Your task to perform on an android device: turn on sleep mode Image 0: 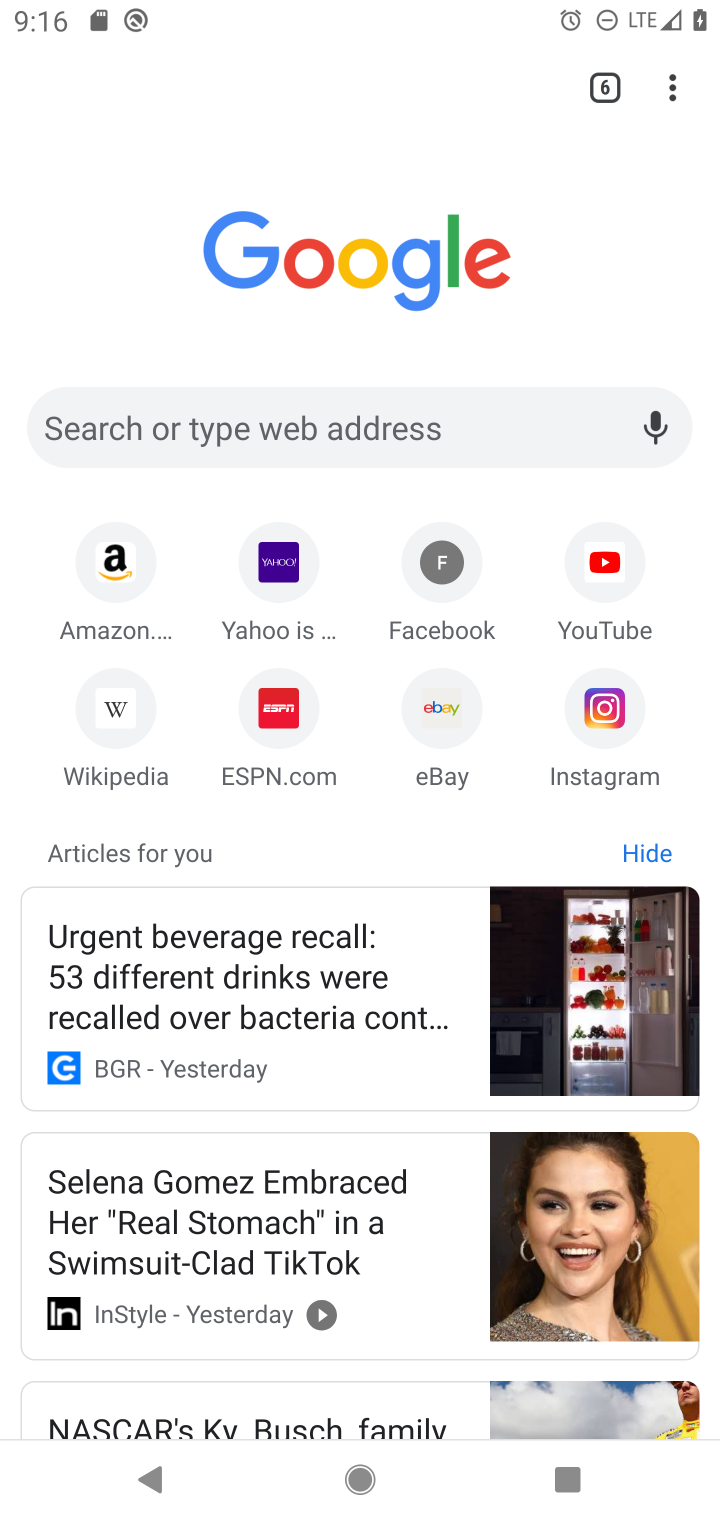
Step 0: press home button
Your task to perform on an android device: turn on sleep mode Image 1: 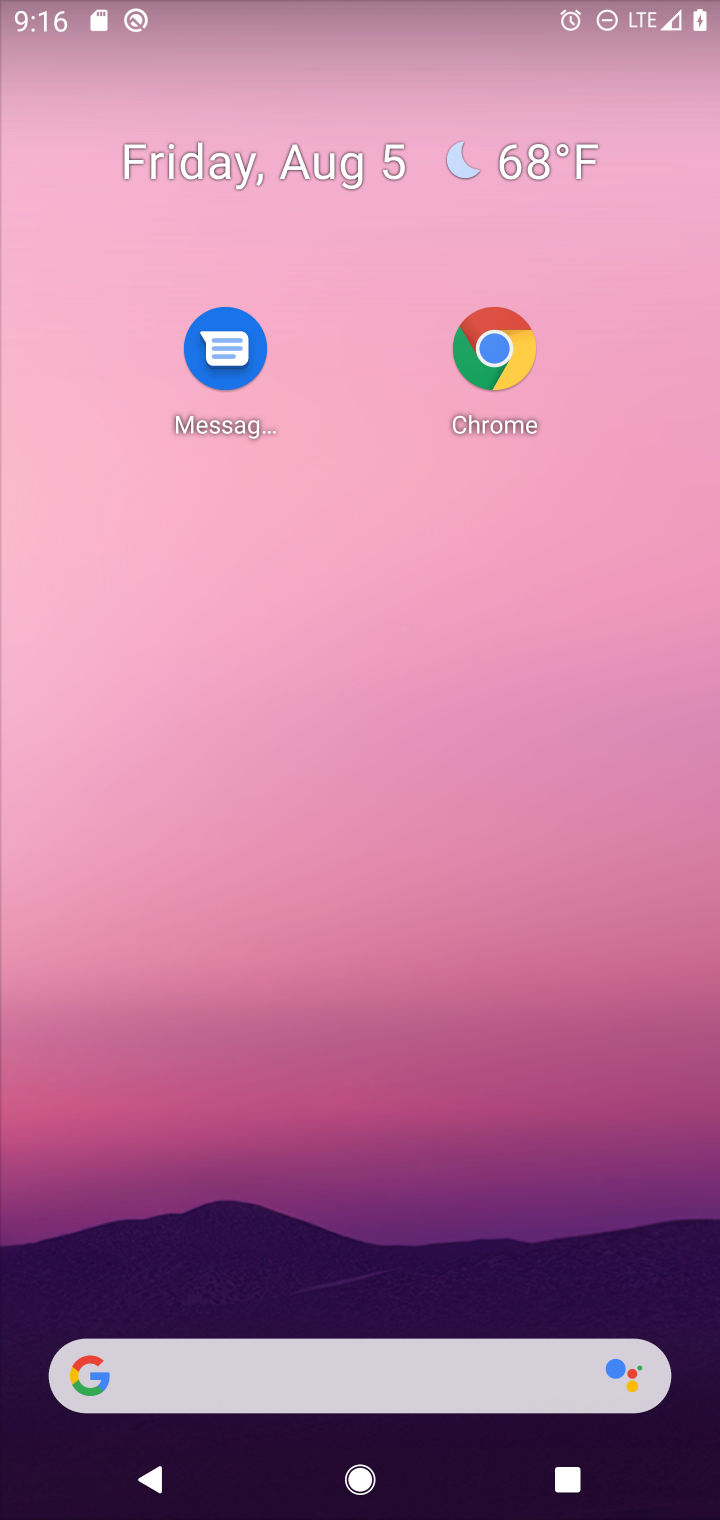
Step 1: drag from (487, 775) to (459, 155)
Your task to perform on an android device: turn on sleep mode Image 2: 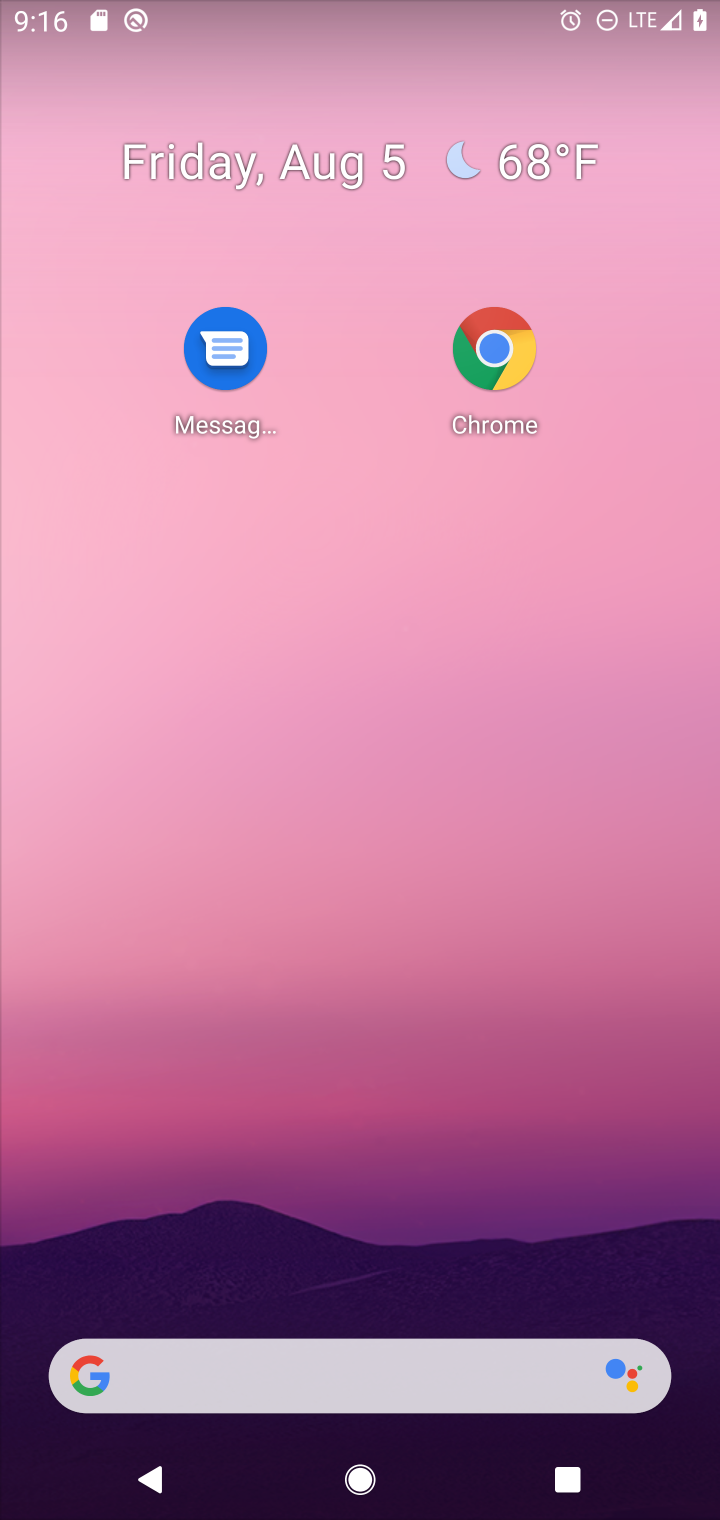
Step 2: drag from (356, 1336) to (456, 122)
Your task to perform on an android device: turn on sleep mode Image 3: 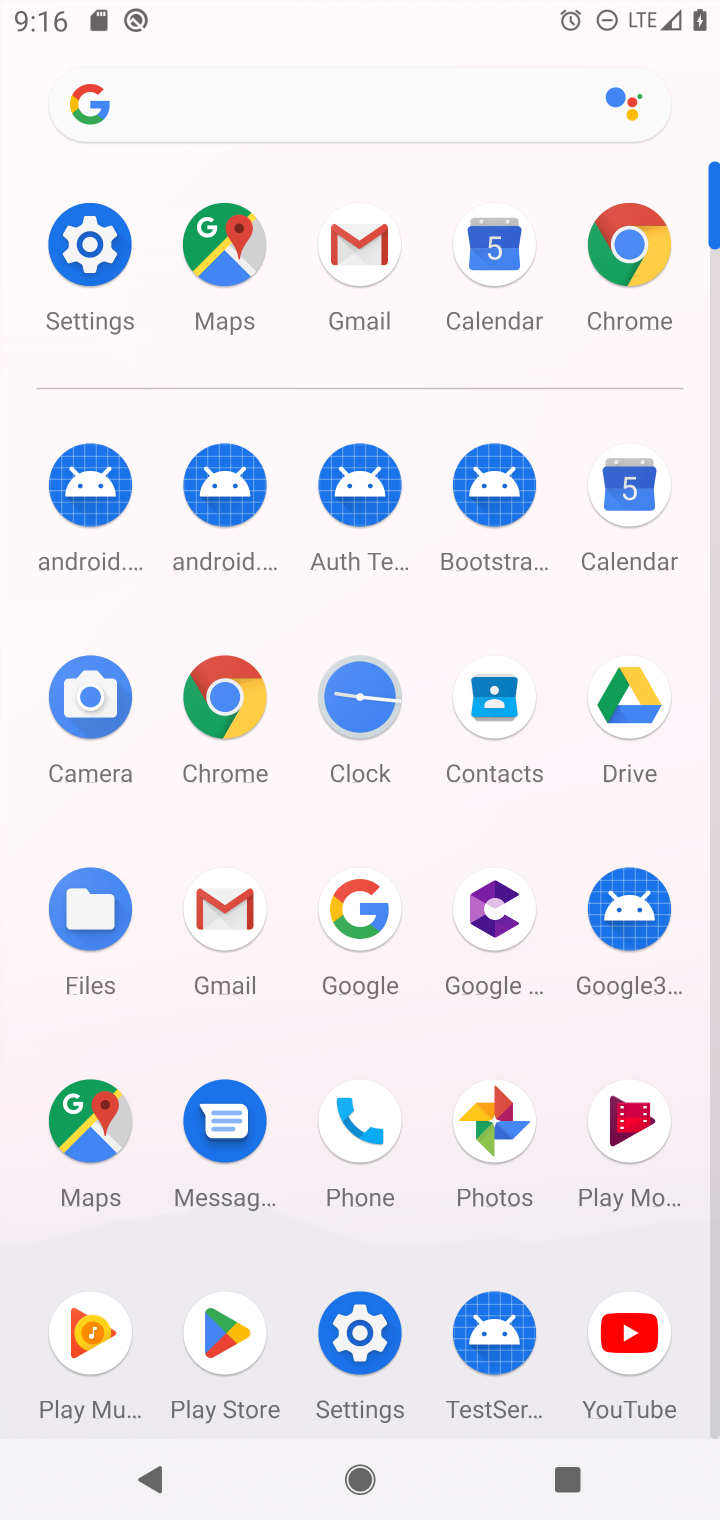
Step 3: click (636, 277)
Your task to perform on an android device: turn on sleep mode Image 4: 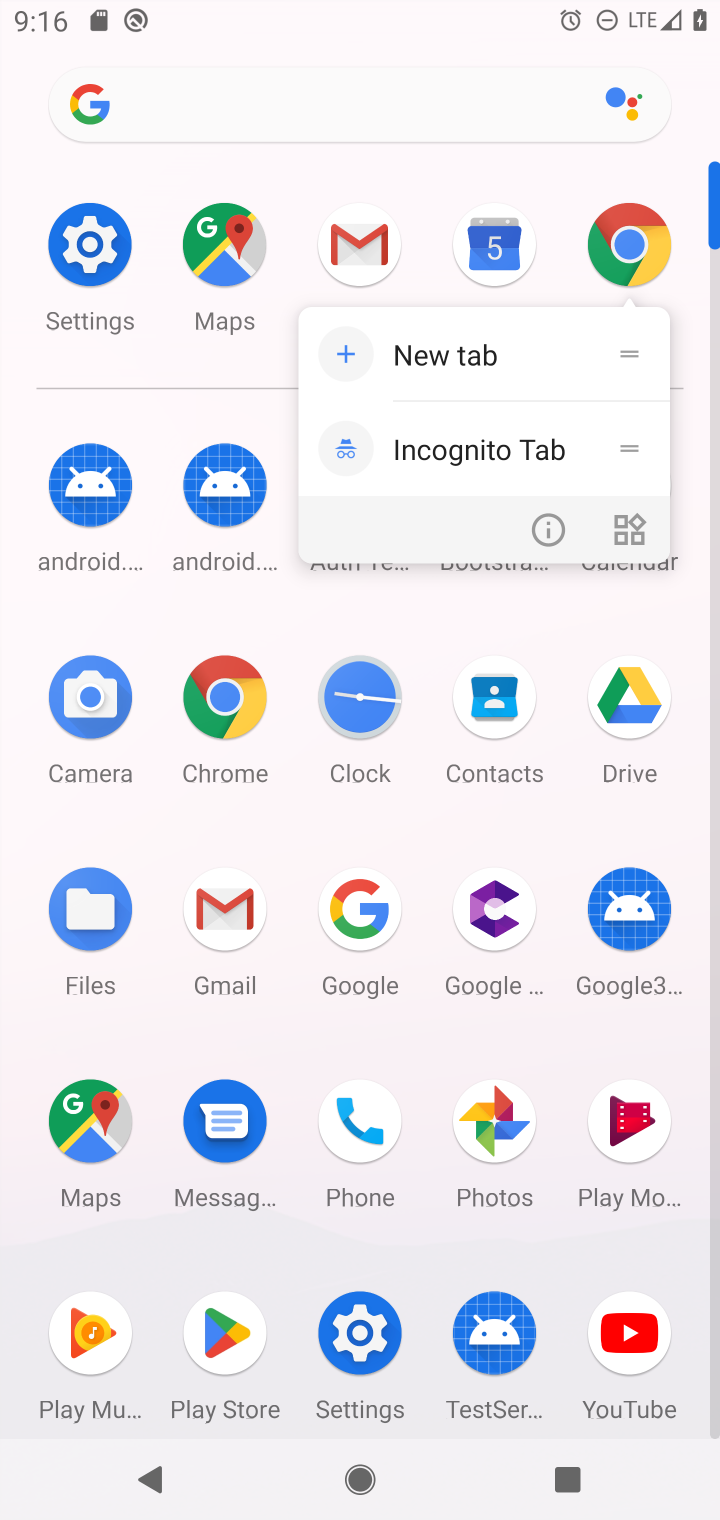
Step 4: click (647, 253)
Your task to perform on an android device: turn on sleep mode Image 5: 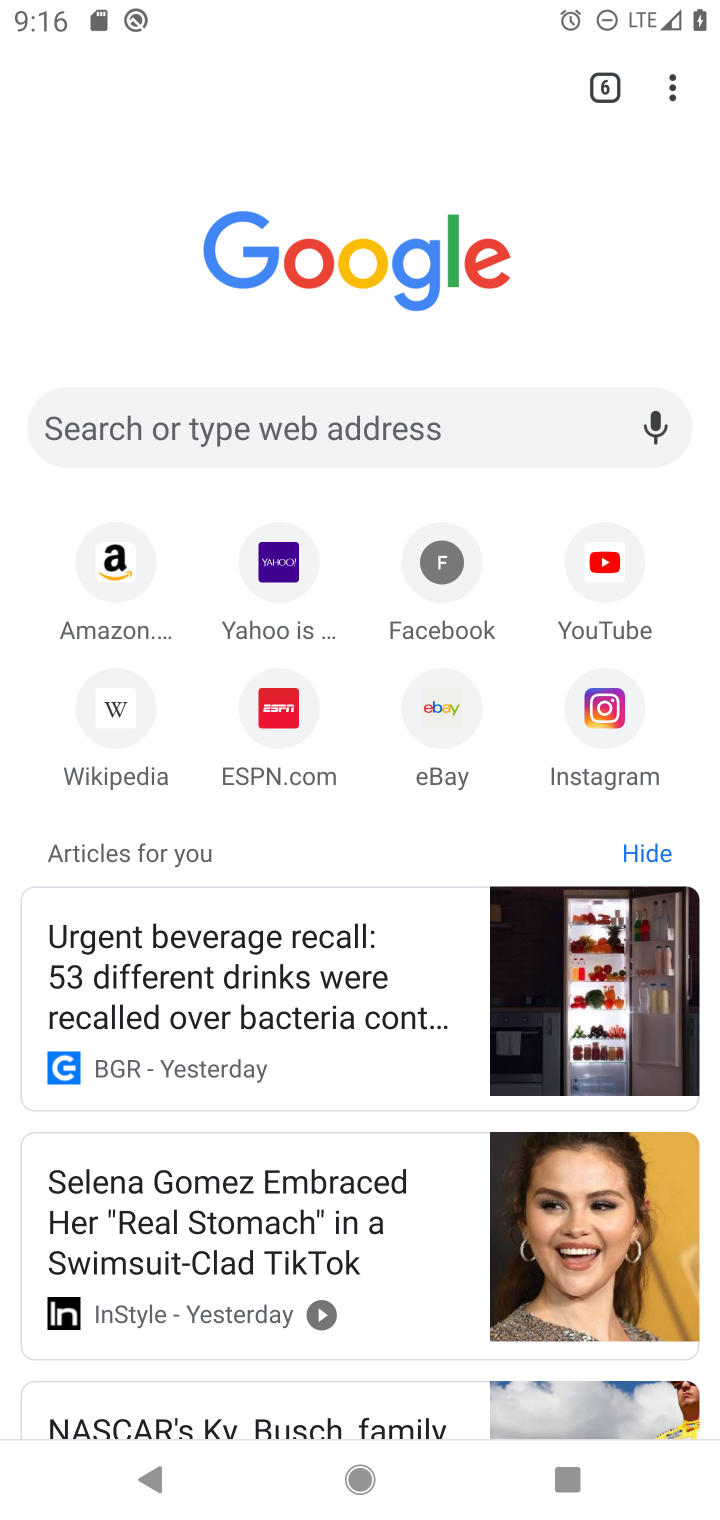
Step 5: click (264, 588)
Your task to perform on an android device: turn on sleep mode Image 6: 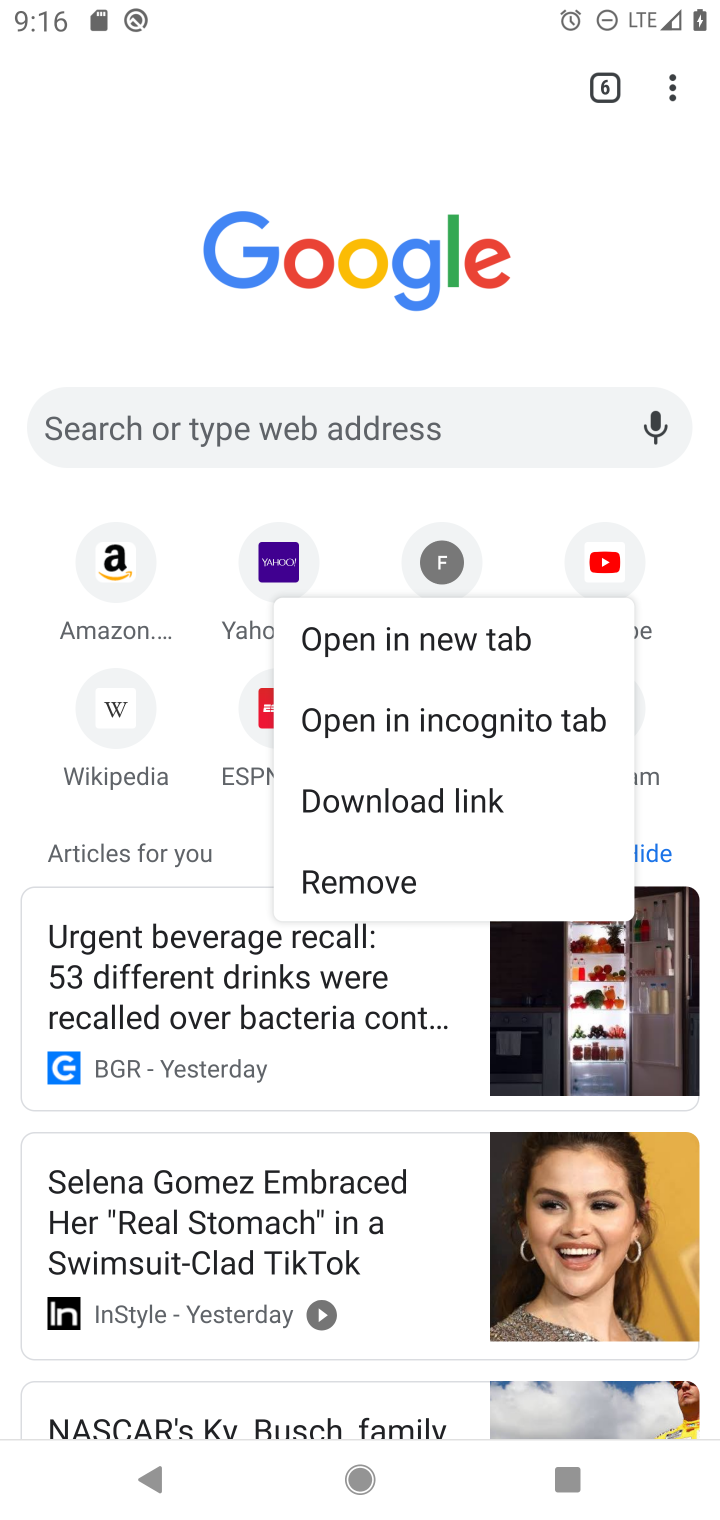
Step 6: click (277, 561)
Your task to perform on an android device: turn on sleep mode Image 7: 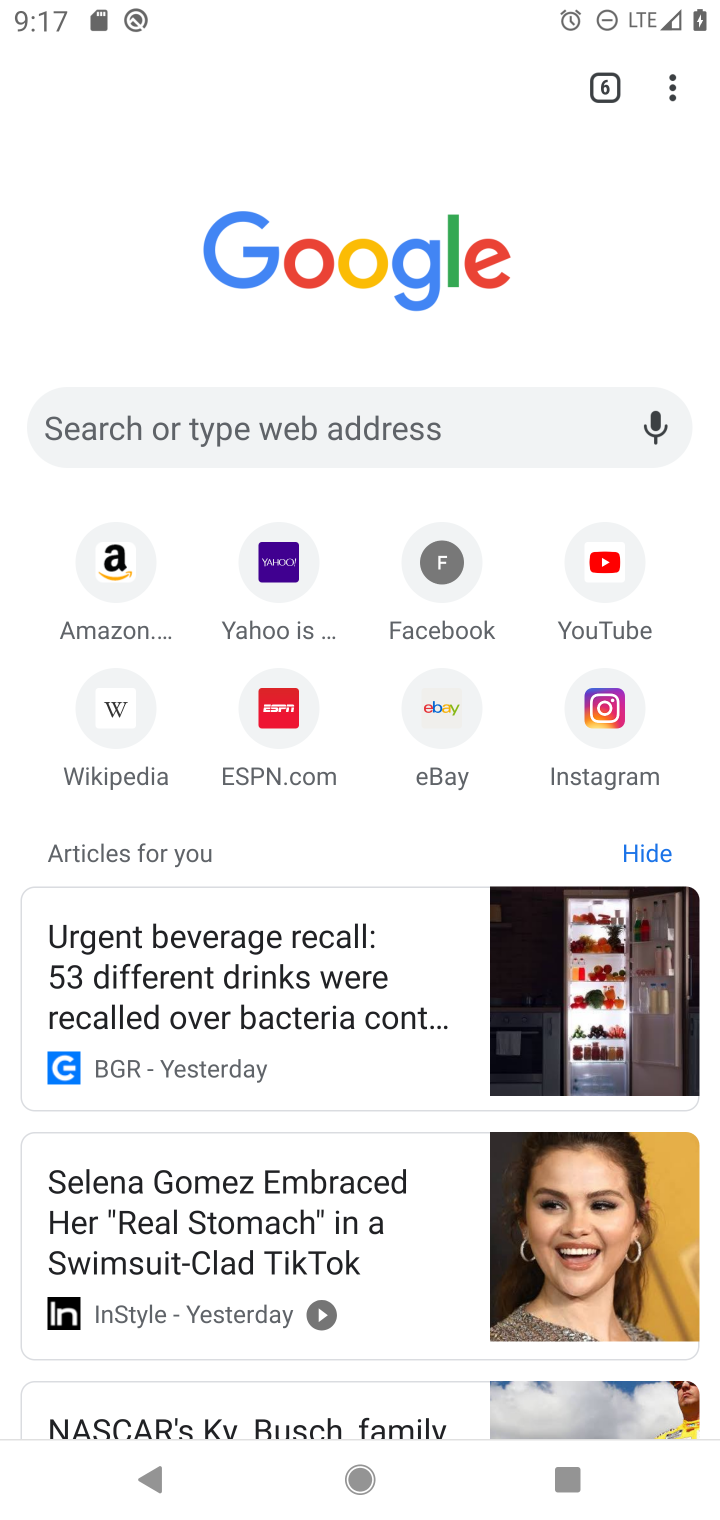
Step 7: press home button
Your task to perform on an android device: turn on sleep mode Image 8: 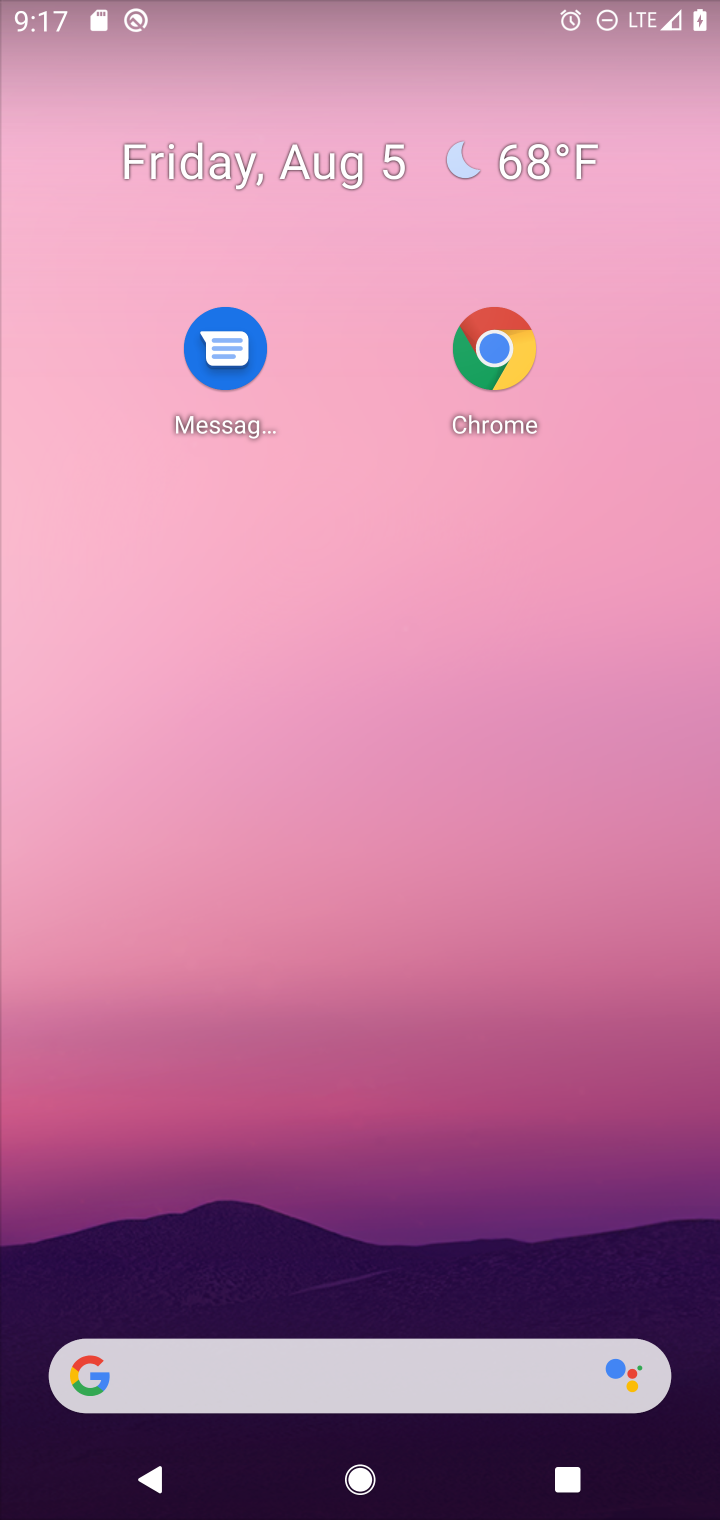
Step 8: drag from (410, 1395) to (278, 129)
Your task to perform on an android device: turn on sleep mode Image 9: 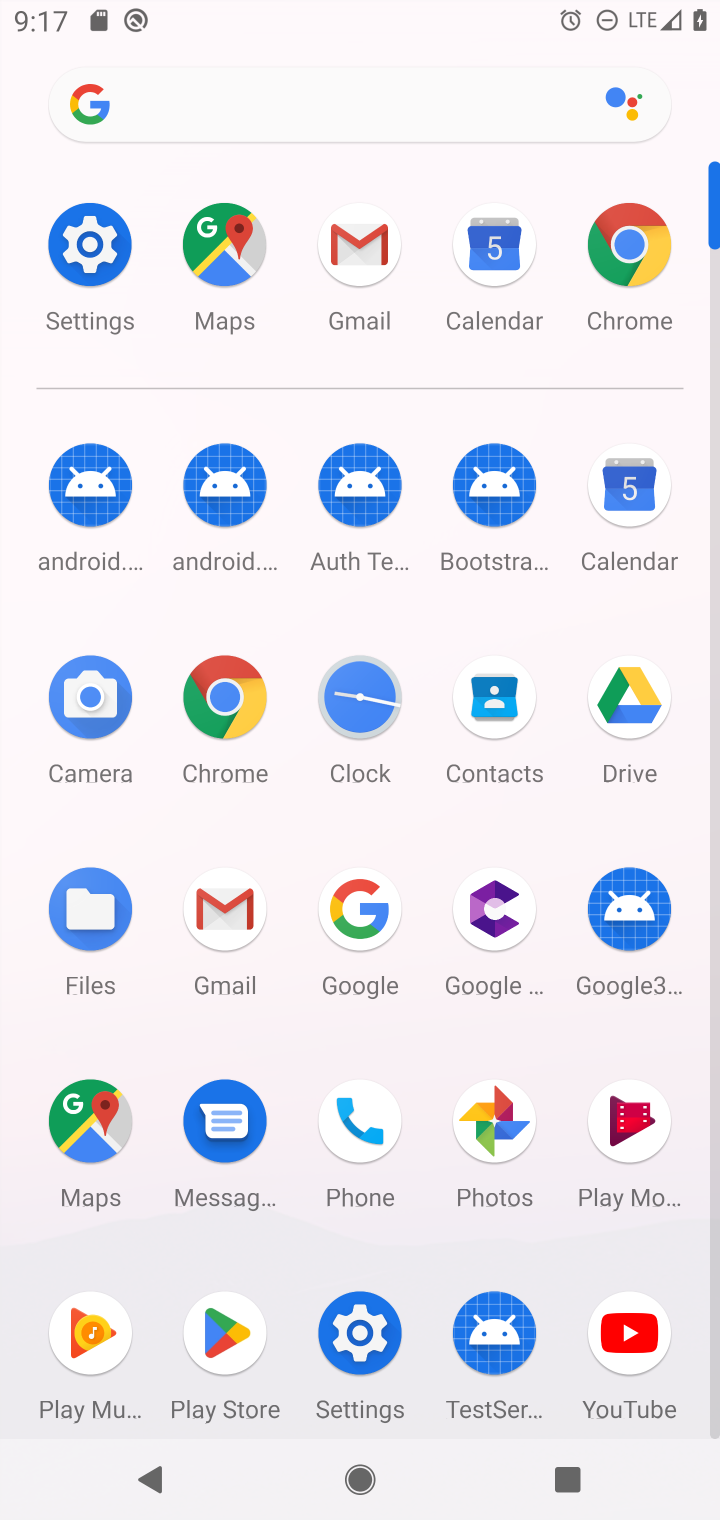
Step 9: click (57, 251)
Your task to perform on an android device: turn on sleep mode Image 10: 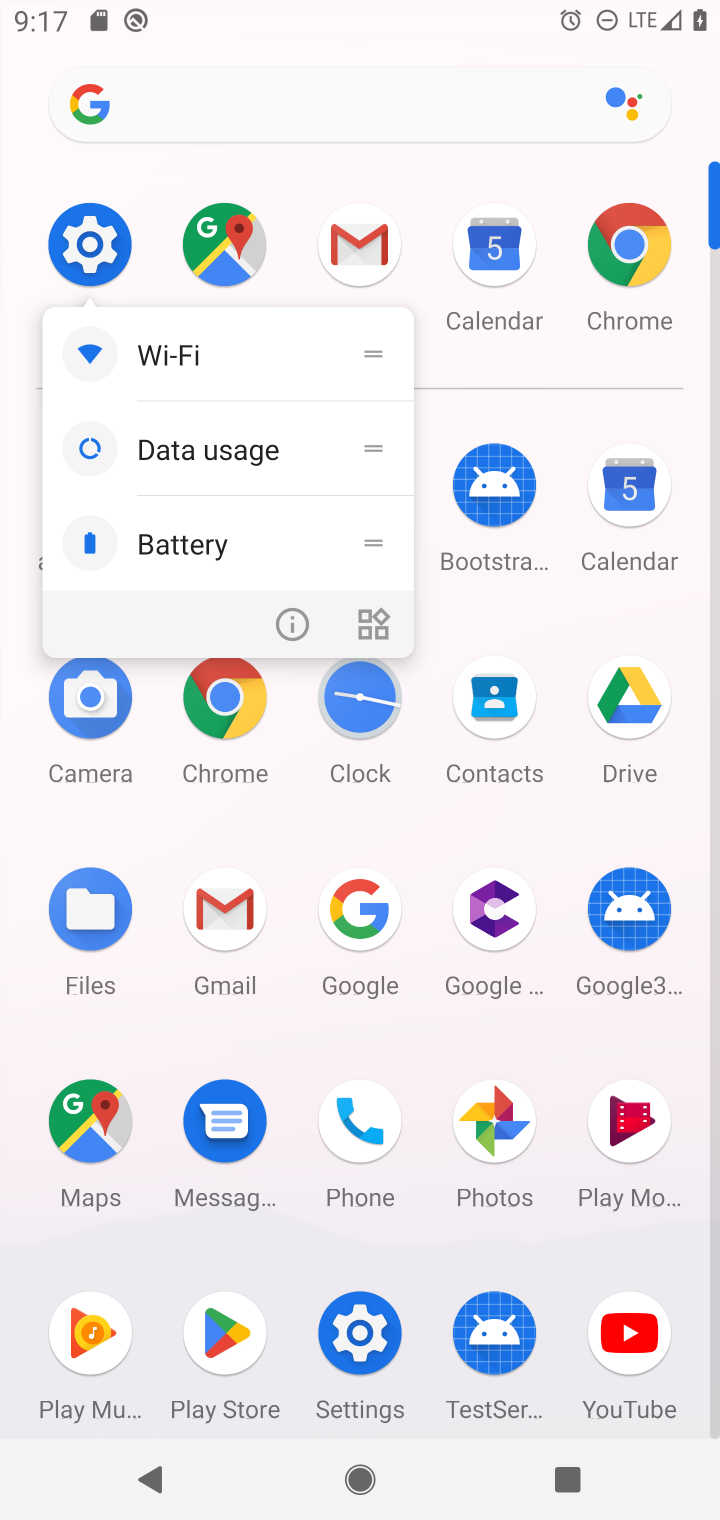
Step 10: click (32, 257)
Your task to perform on an android device: turn on sleep mode Image 11: 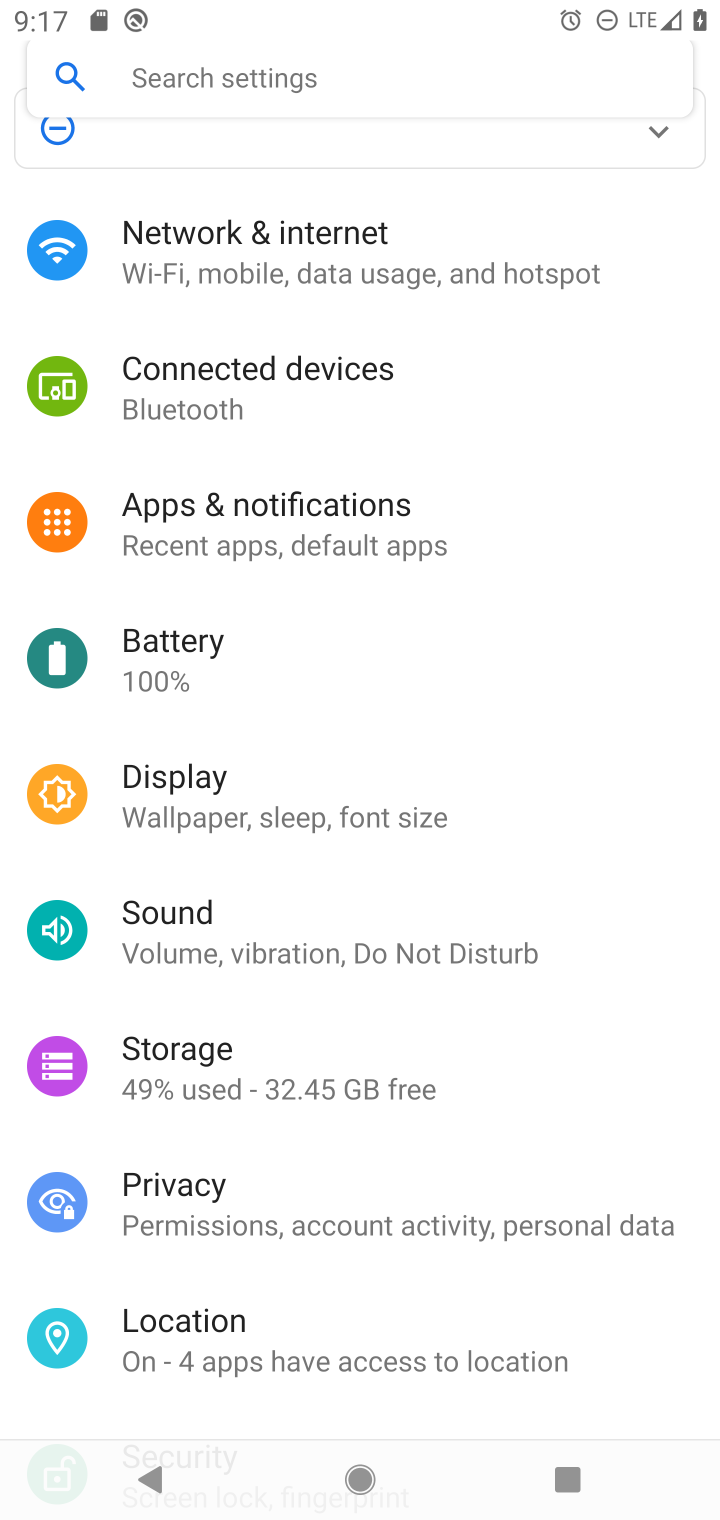
Step 11: click (248, 82)
Your task to perform on an android device: turn on sleep mode Image 12: 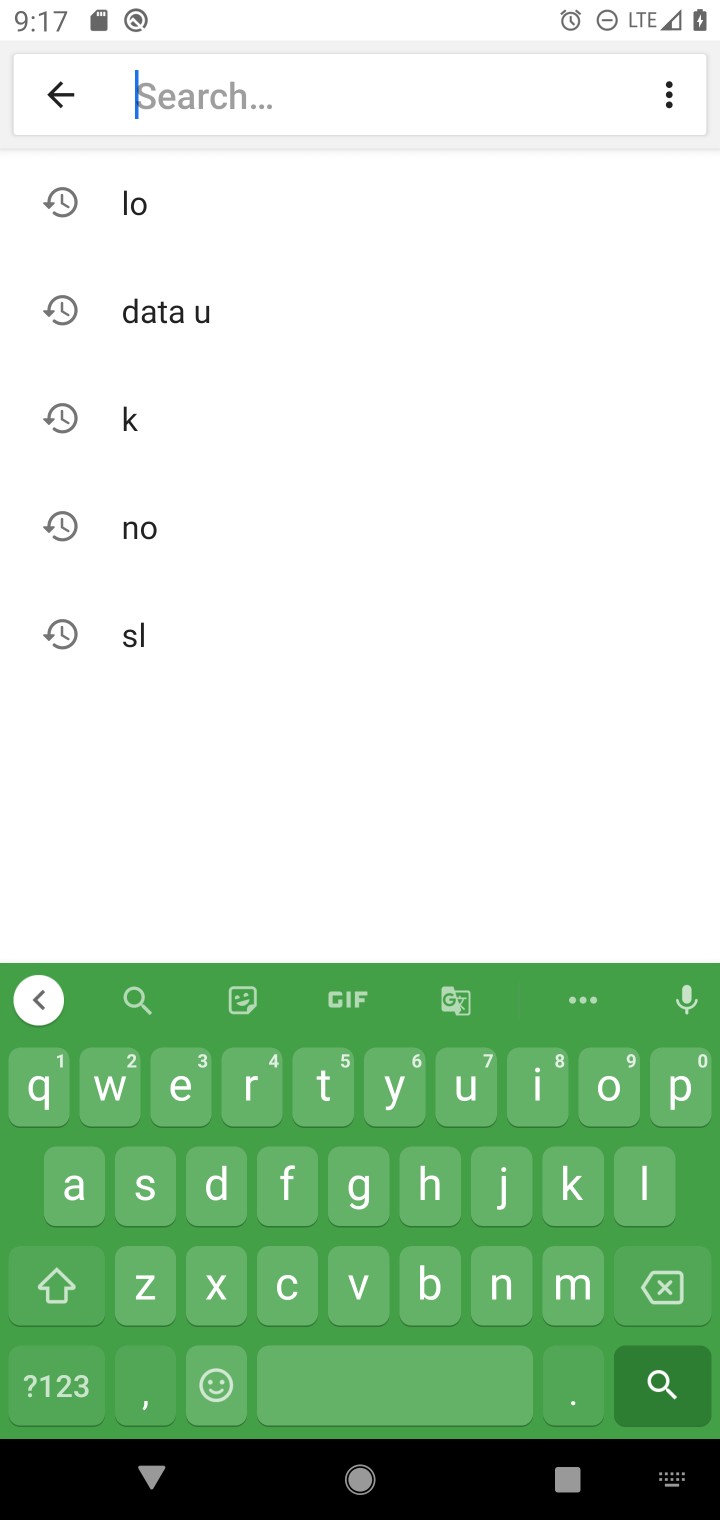
Step 12: click (206, 644)
Your task to perform on an android device: turn on sleep mode Image 13: 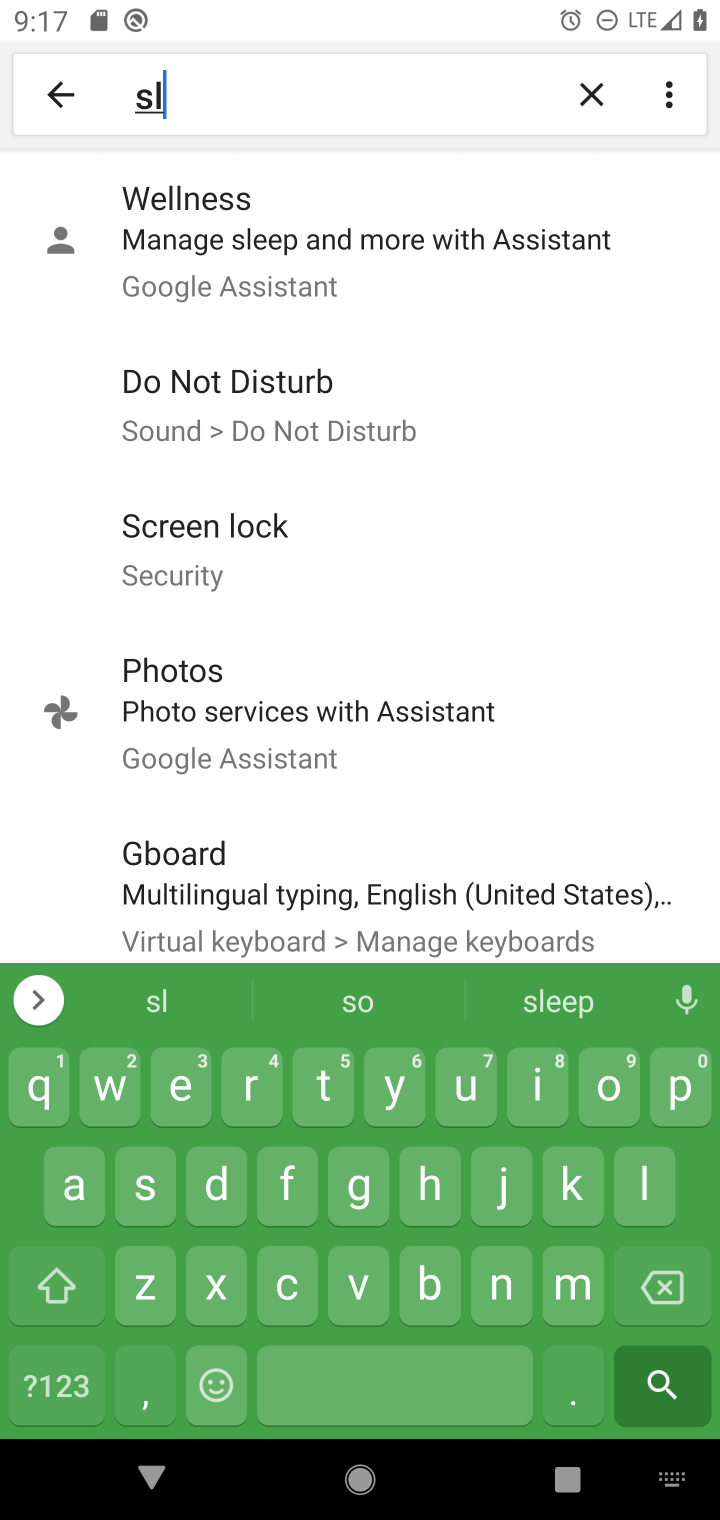
Step 13: click (310, 397)
Your task to perform on an android device: turn on sleep mode Image 14: 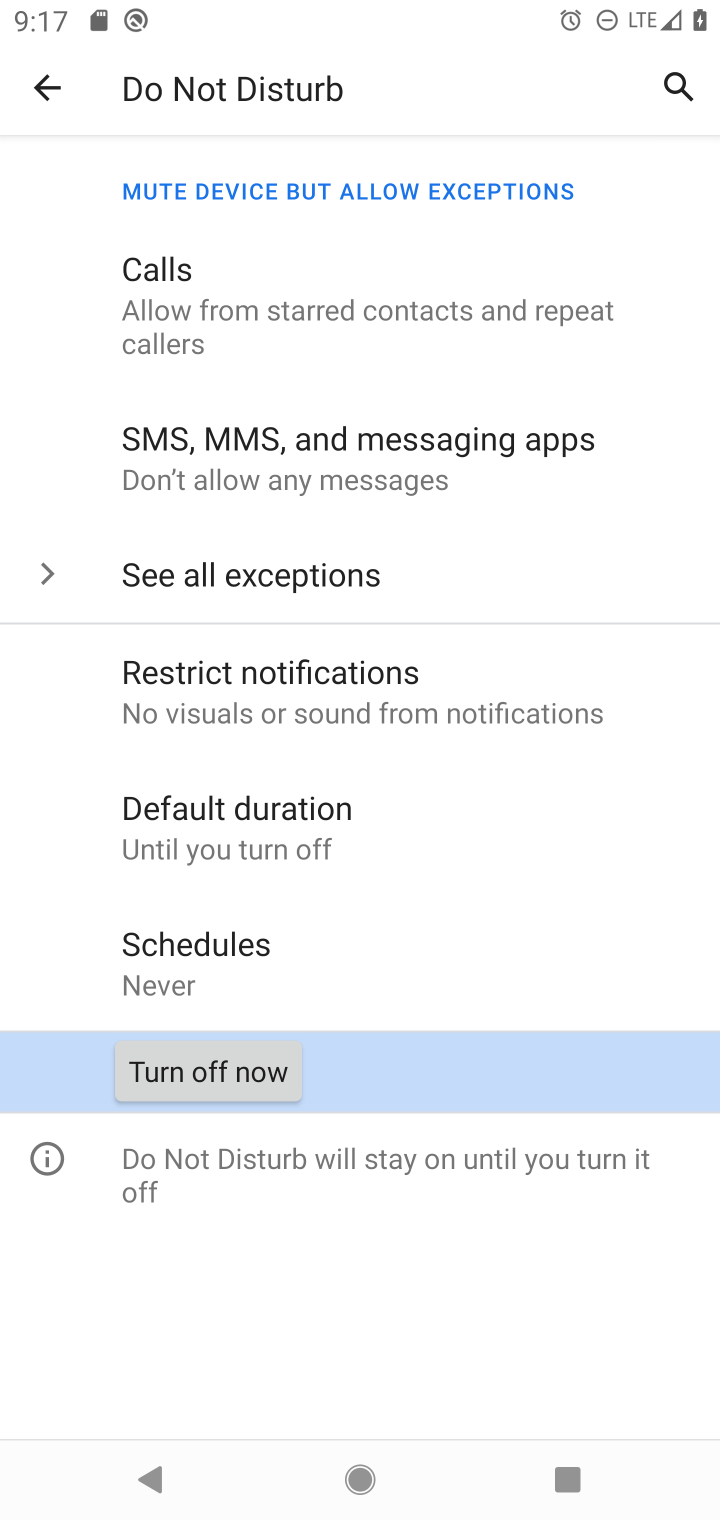
Step 14: click (177, 1068)
Your task to perform on an android device: turn on sleep mode Image 15: 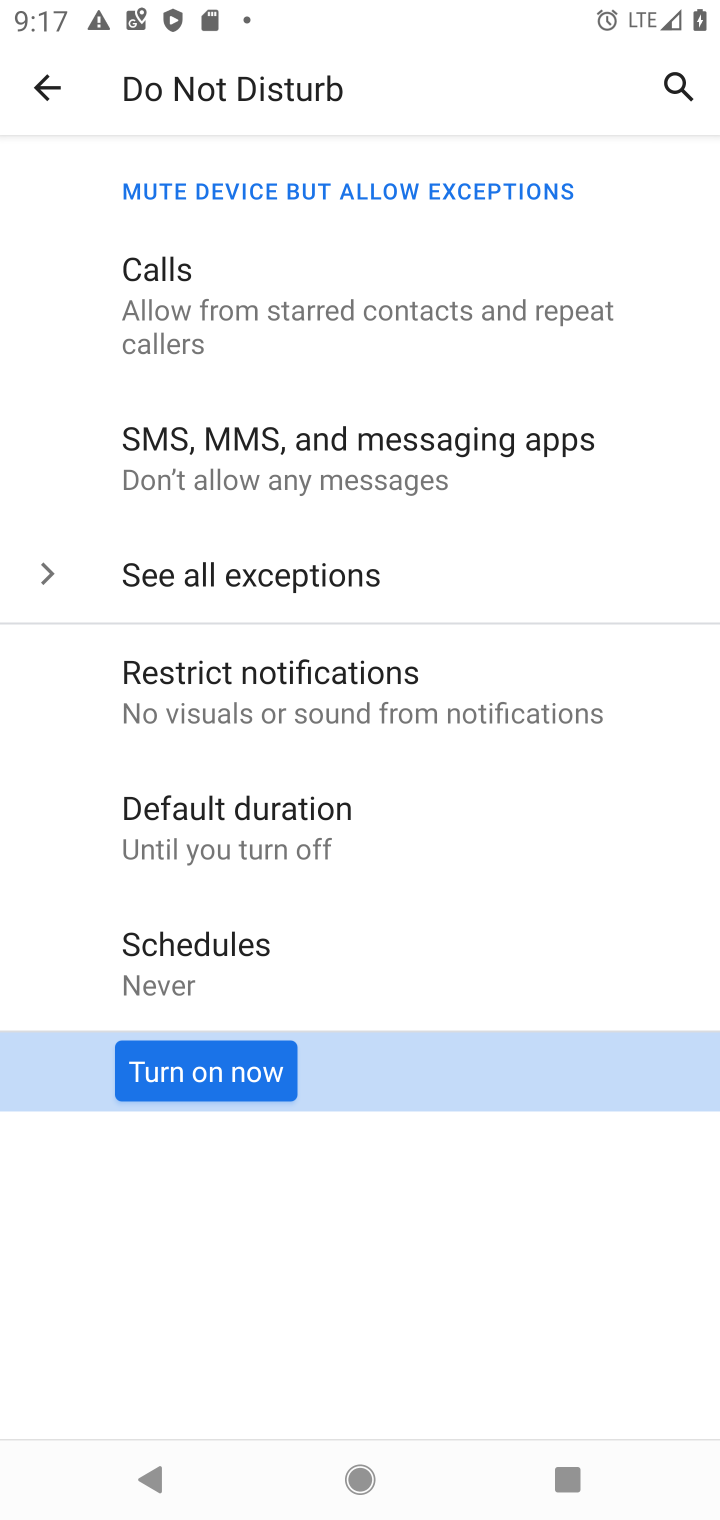
Step 15: task complete